Your task to perform on an android device: Show me the alarms in the clock app Image 0: 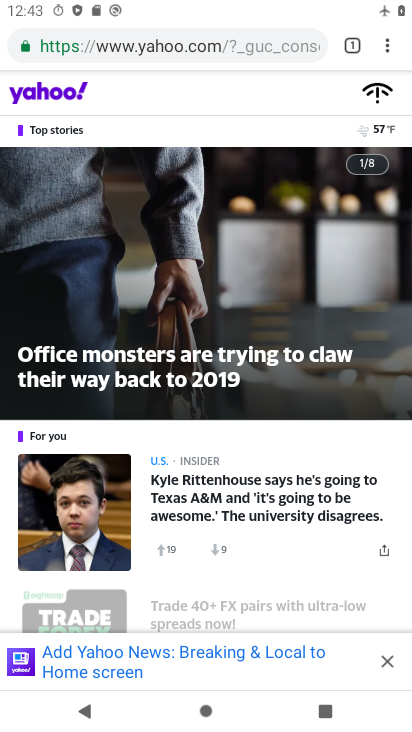
Step 0: press home button
Your task to perform on an android device: Show me the alarms in the clock app Image 1: 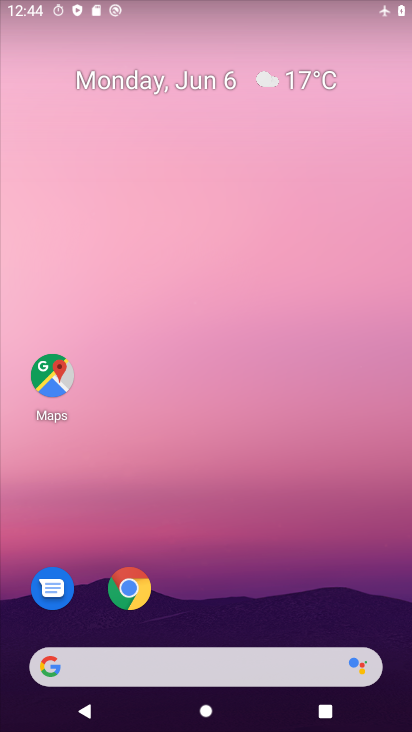
Step 1: drag from (269, 456) to (277, 166)
Your task to perform on an android device: Show me the alarms in the clock app Image 2: 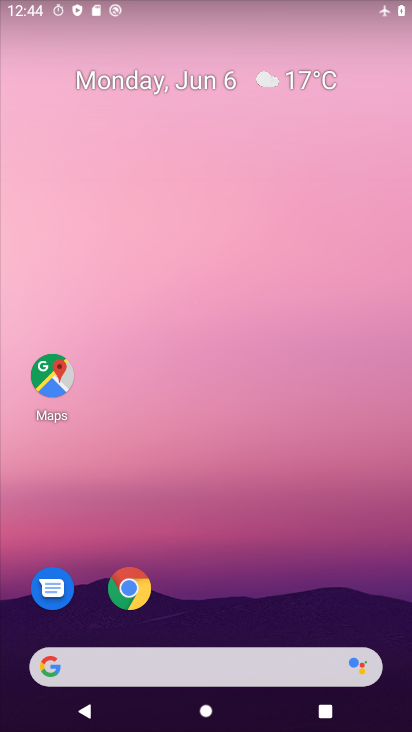
Step 2: drag from (195, 509) to (229, 81)
Your task to perform on an android device: Show me the alarms in the clock app Image 3: 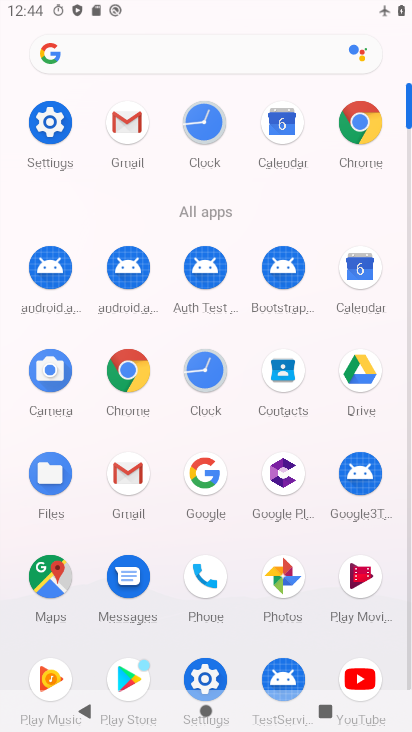
Step 3: click (195, 364)
Your task to perform on an android device: Show me the alarms in the clock app Image 4: 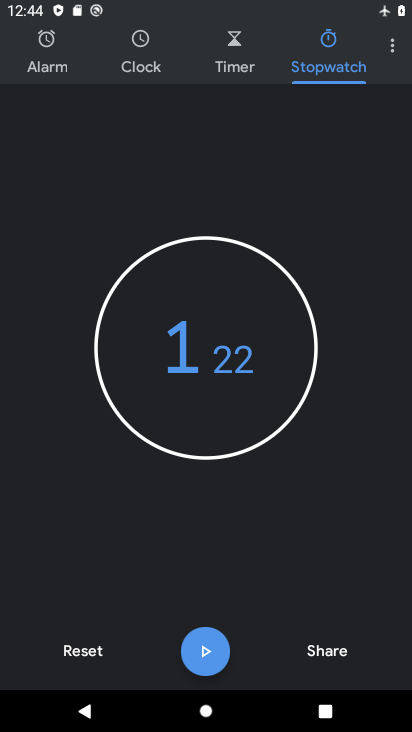
Step 4: click (395, 41)
Your task to perform on an android device: Show me the alarms in the clock app Image 5: 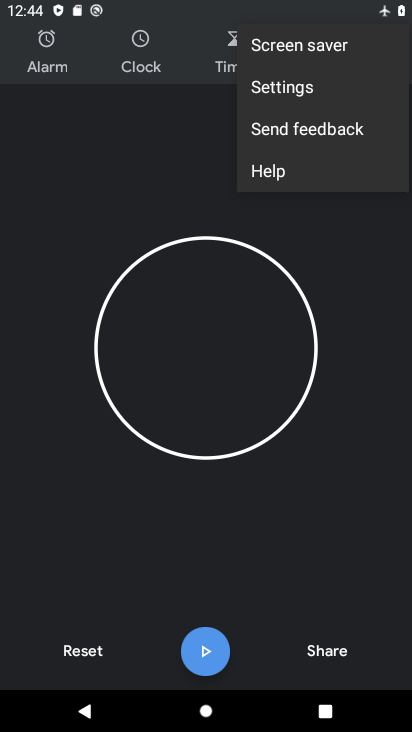
Step 5: click (63, 71)
Your task to perform on an android device: Show me the alarms in the clock app Image 6: 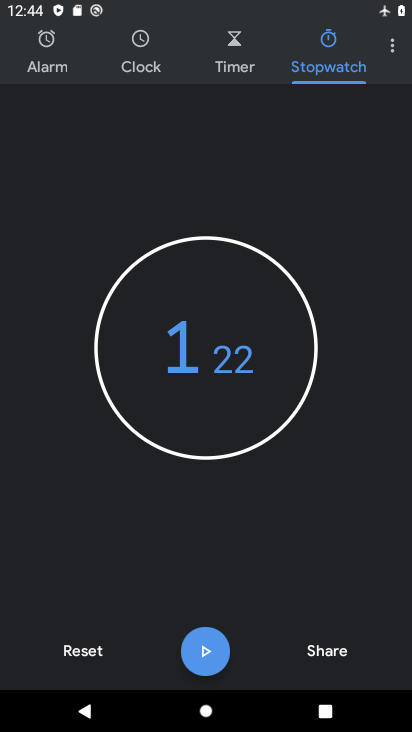
Step 6: click (58, 65)
Your task to perform on an android device: Show me the alarms in the clock app Image 7: 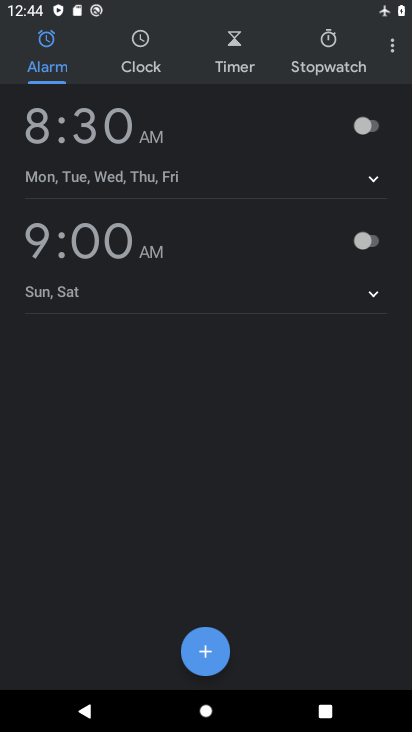
Step 7: task complete